Your task to perform on an android device: Go to Yahoo.com Image 0: 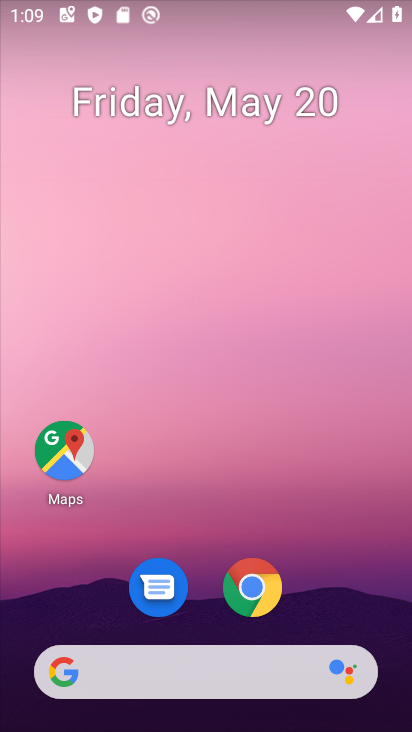
Step 0: click (241, 573)
Your task to perform on an android device: Go to Yahoo.com Image 1: 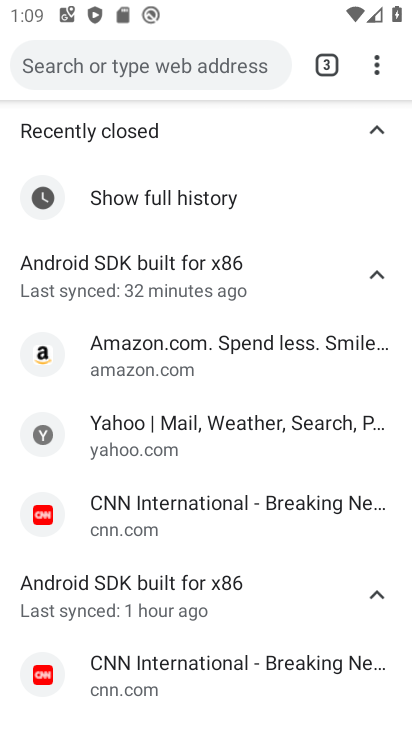
Step 1: click (375, 65)
Your task to perform on an android device: Go to Yahoo.com Image 2: 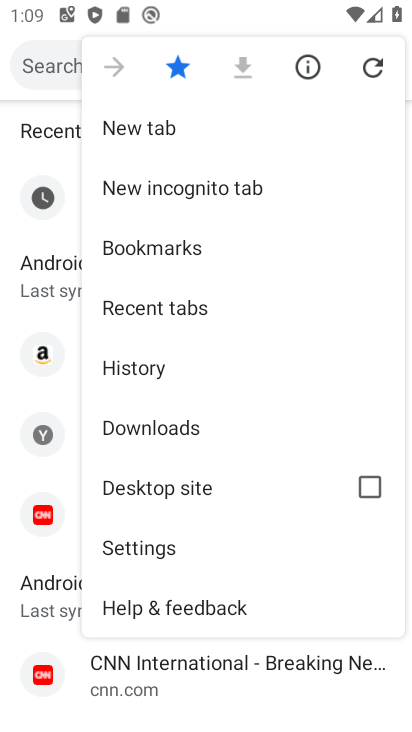
Step 2: click (165, 120)
Your task to perform on an android device: Go to Yahoo.com Image 3: 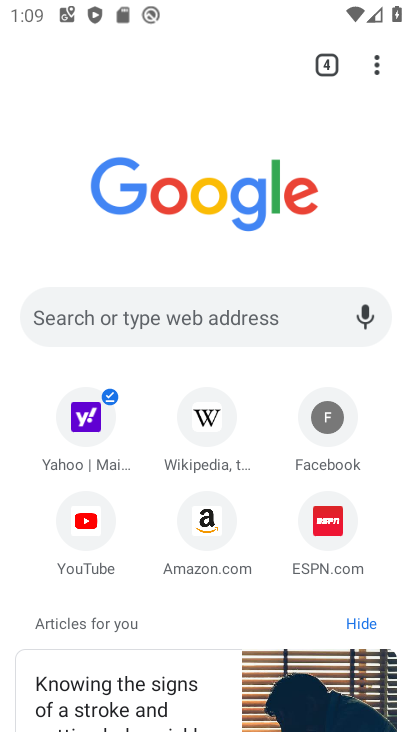
Step 3: click (81, 429)
Your task to perform on an android device: Go to Yahoo.com Image 4: 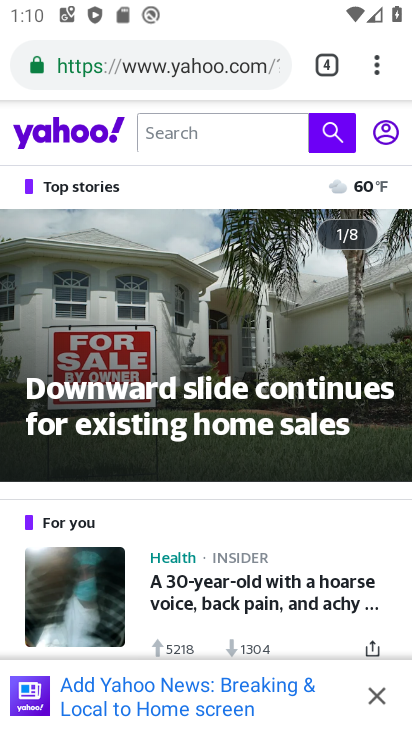
Step 4: task complete